Your task to perform on an android device: Open Google Chrome and open the bookmarks view Image 0: 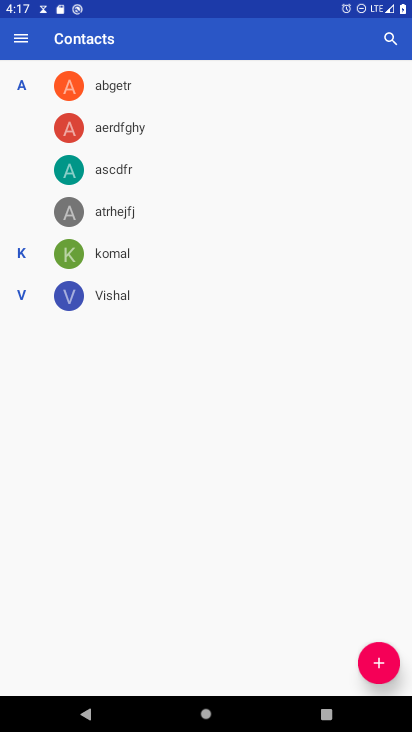
Step 0: press home button
Your task to perform on an android device: Open Google Chrome and open the bookmarks view Image 1: 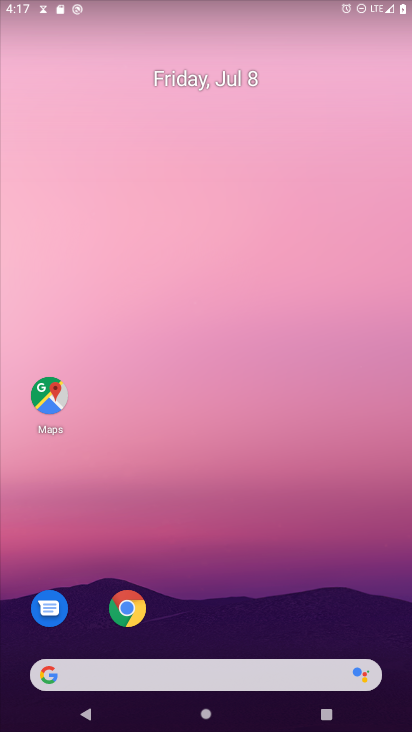
Step 1: drag from (300, 607) to (288, 87)
Your task to perform on an android device: Open Google Chrome and open the bookmarks view Image 2: 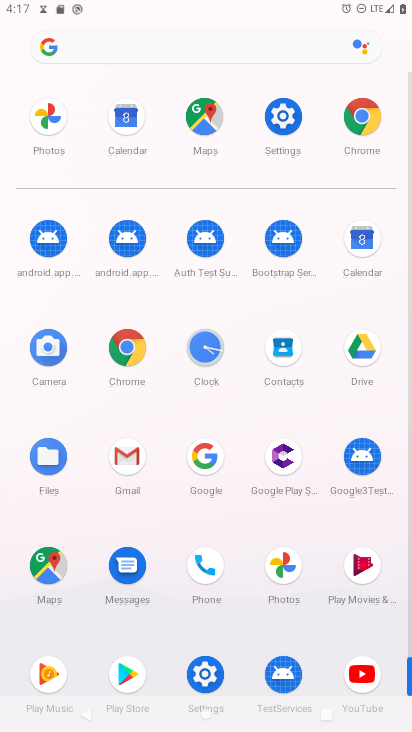
Step 2: click (131, 355)
Your task to perform on an android device: Open Google Chrome and open the bookmarks view Image 3: 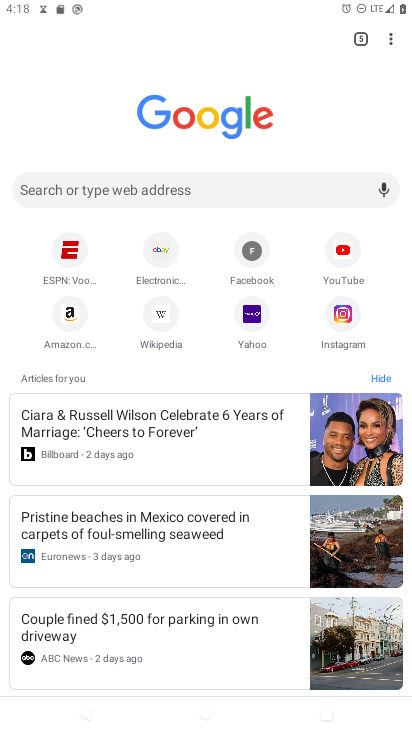
Step 3: task complete